Your task to perform on an android device: open a new tab in the chrome app Image 0: 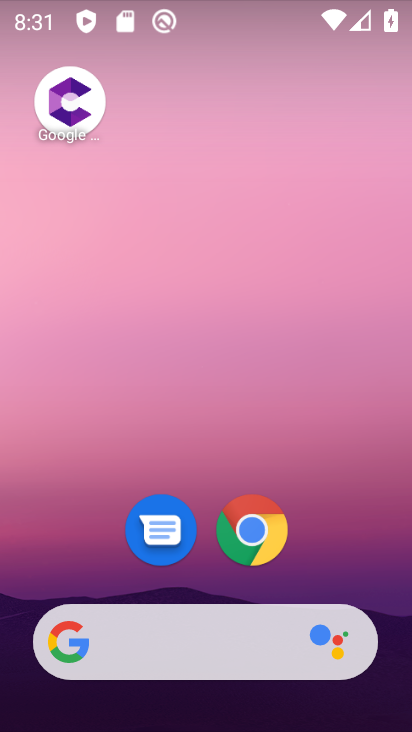
Step 0: drag from (187, 643) to (330, 86)
Your task to perform on an android device: open a new tab in the chrome app Image 1: 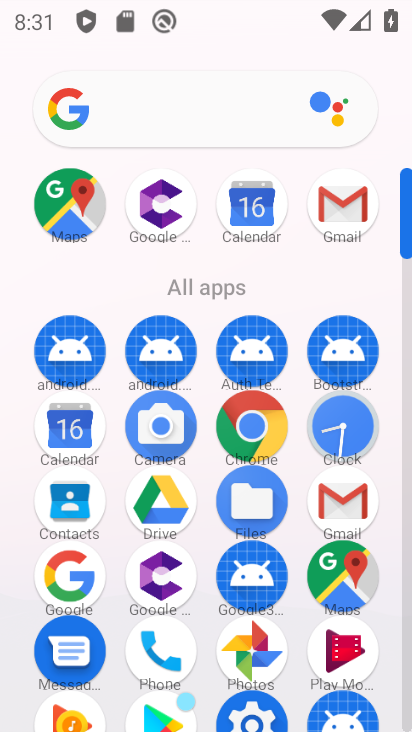
Step 1: click (247, 425)
Your task to perform on an android device: open a new tab in the chrome app Image 2: 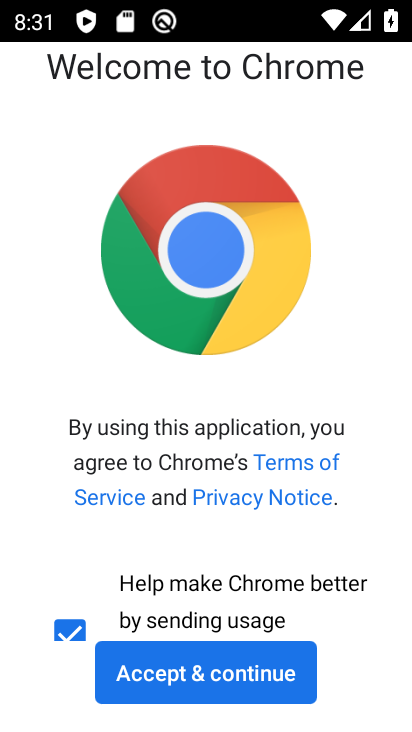
Step 2: click (182, 671)
Your task to perform on an android device: open a new tab in the chrome app Image 3: 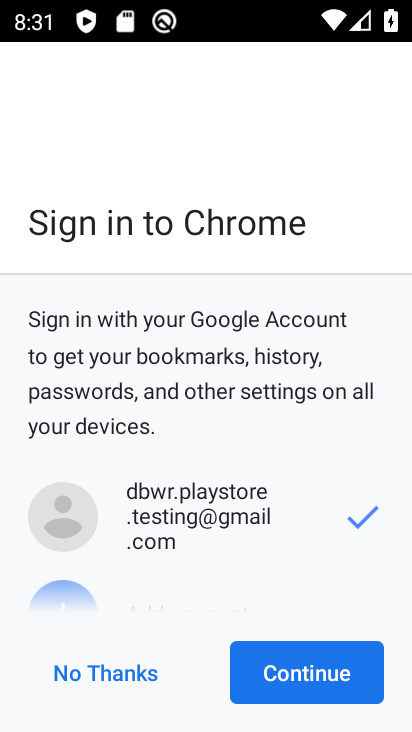
Step 3: click (293, 674)
Your task to perform on an android device: open a new tab in the chrome app Image 4: 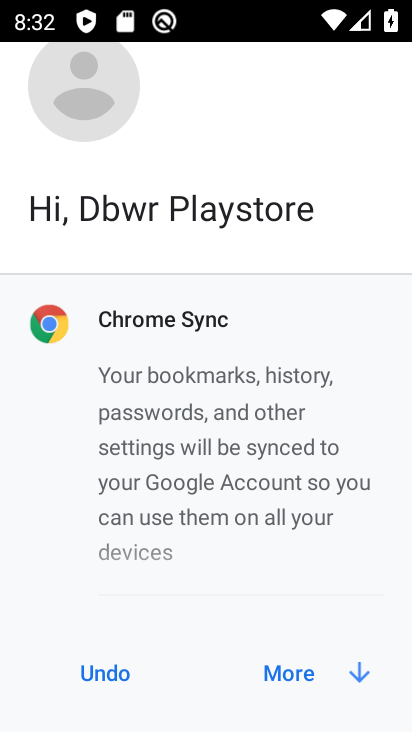
Step 4: click (294, 689)
Your task to perform on an android device: open a new tab in the chrome app Image 5: 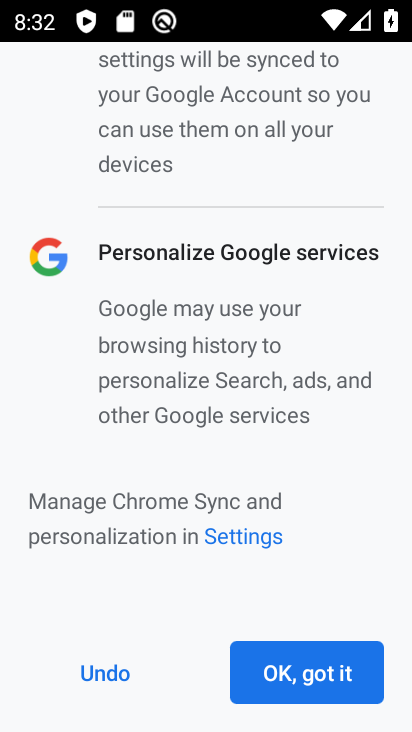
Step 5: click (294, 689)
Your task to perform on an android device: open a new tab in the chrome app Image 6: 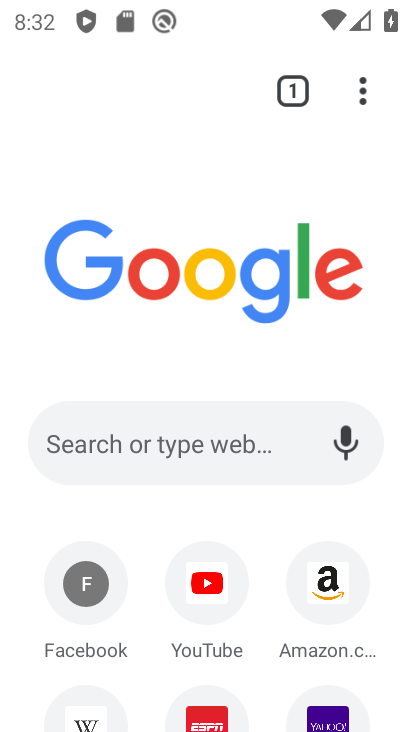
Step 6: task complete